Your task to perform on an android device: Search for vintage wall art on Etsy. Image 0: 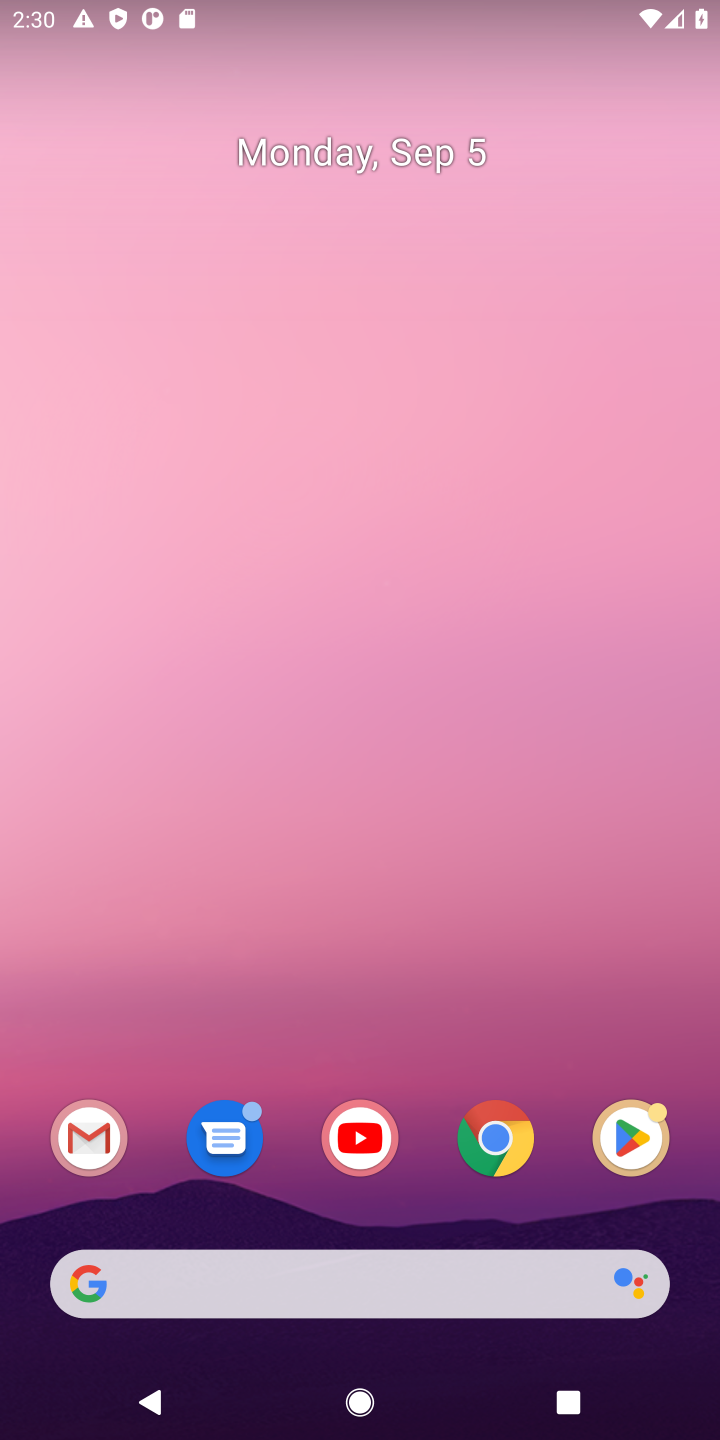
Step 0: click (497, 1139)
Your task to perform on an android device: Search for vintage wall art on Etsy. Image 1: 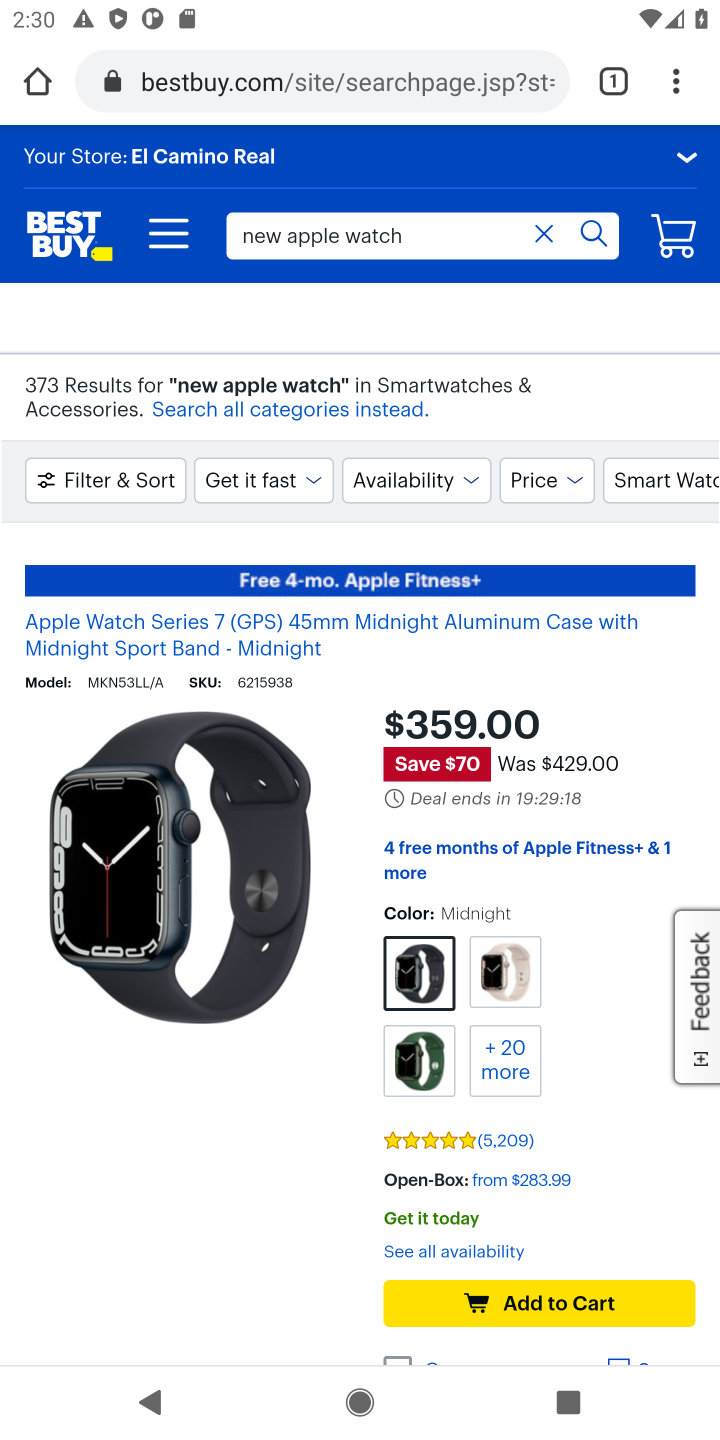
Step 1: click (463, 101)
Your task to perform on an android device: Search for vintage wall art on Etsy. Image 2: 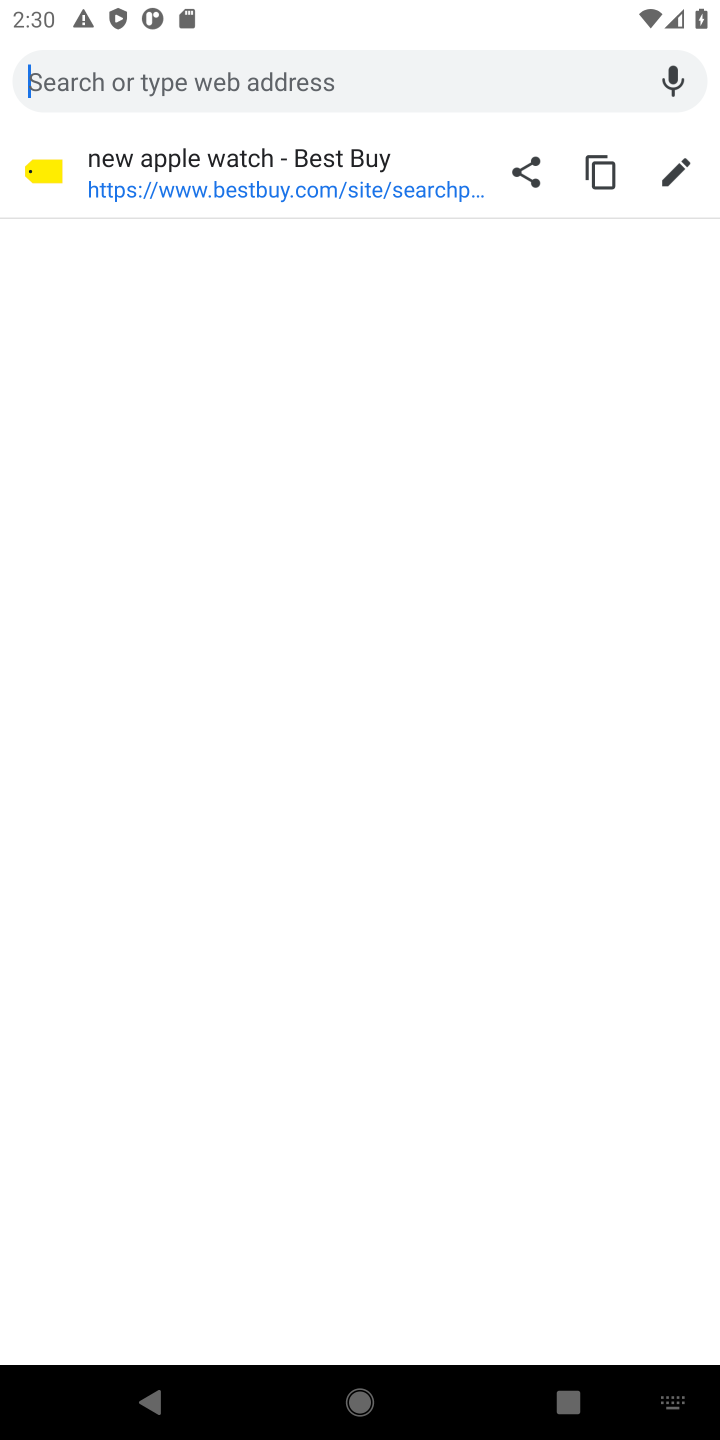
Step 2: type "Etsy"
Your task to perform on an android device: Search for vintage wall art on Etsy. Image 3: 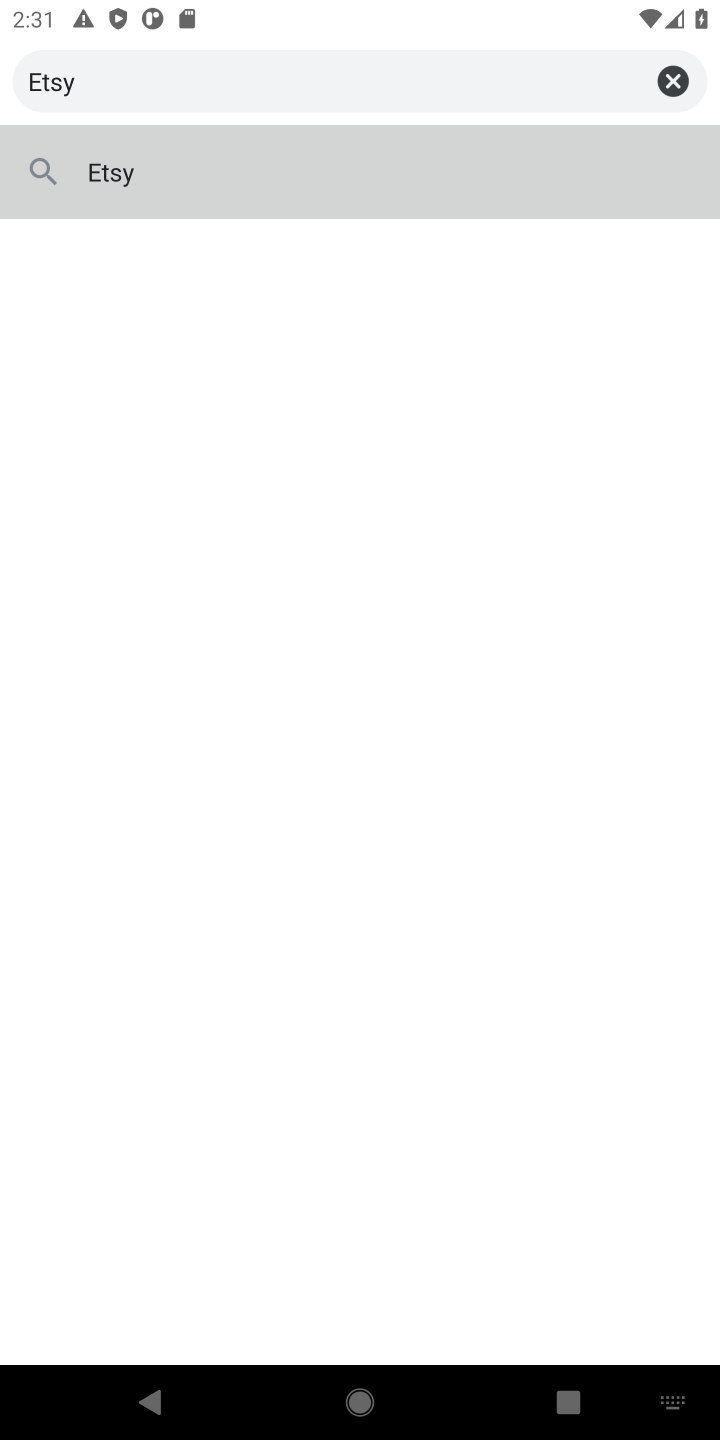
Step 3: click (137, 171)
Your task to perform on an android device: Search for vintage wall art on Etsy. Image 4: 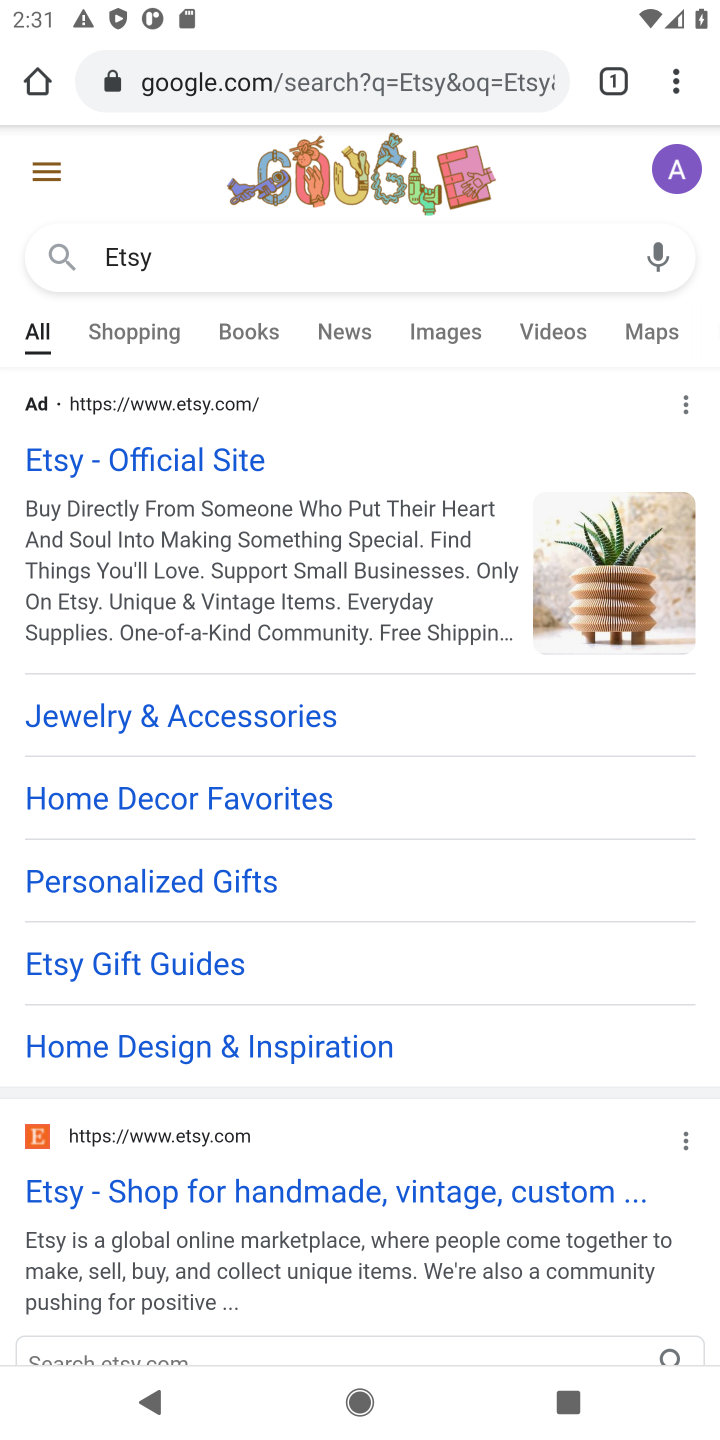
Step 4: click (263, 1207)
Your task to perform on an android device: Search for vintage wall art on Etsy. Image 5: 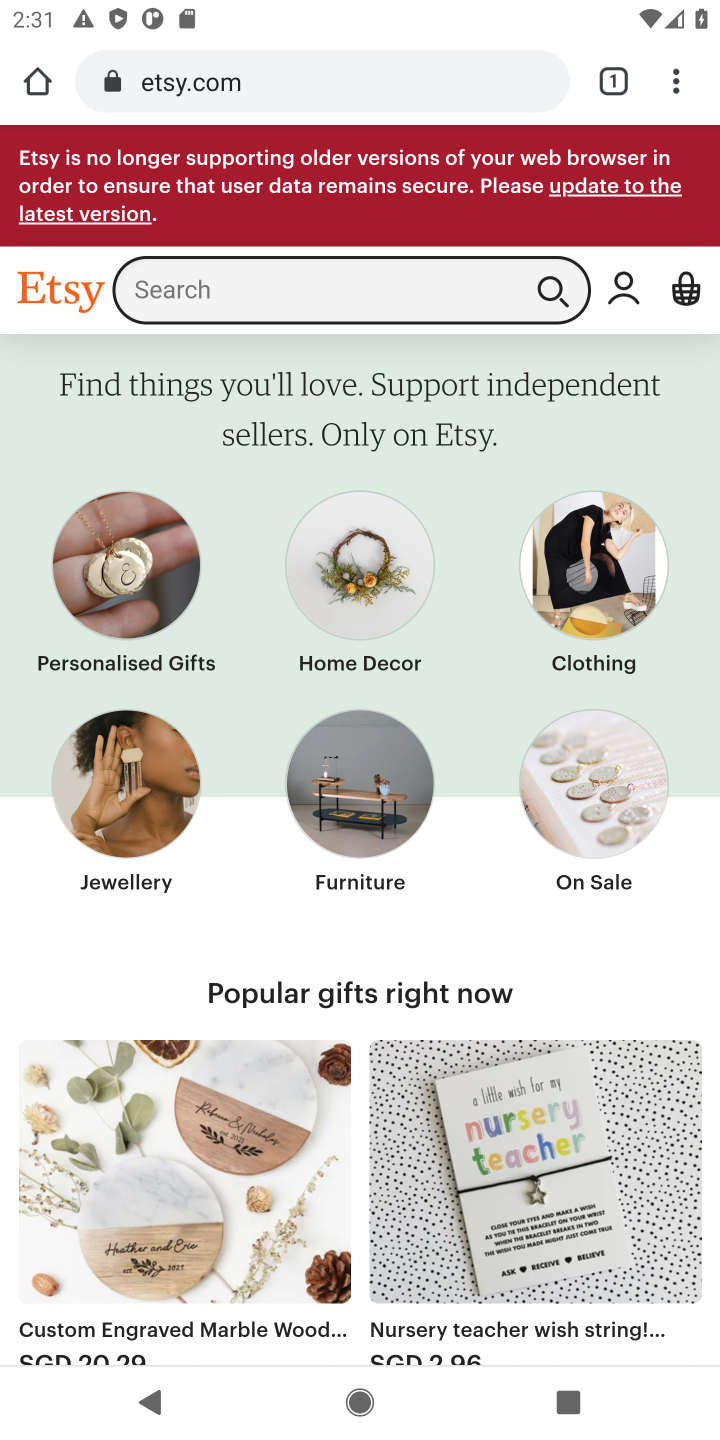
Step 5: click (366, 292)
Your task to perform on an android device: Search for vintage wall art on Etsy. Image 6: 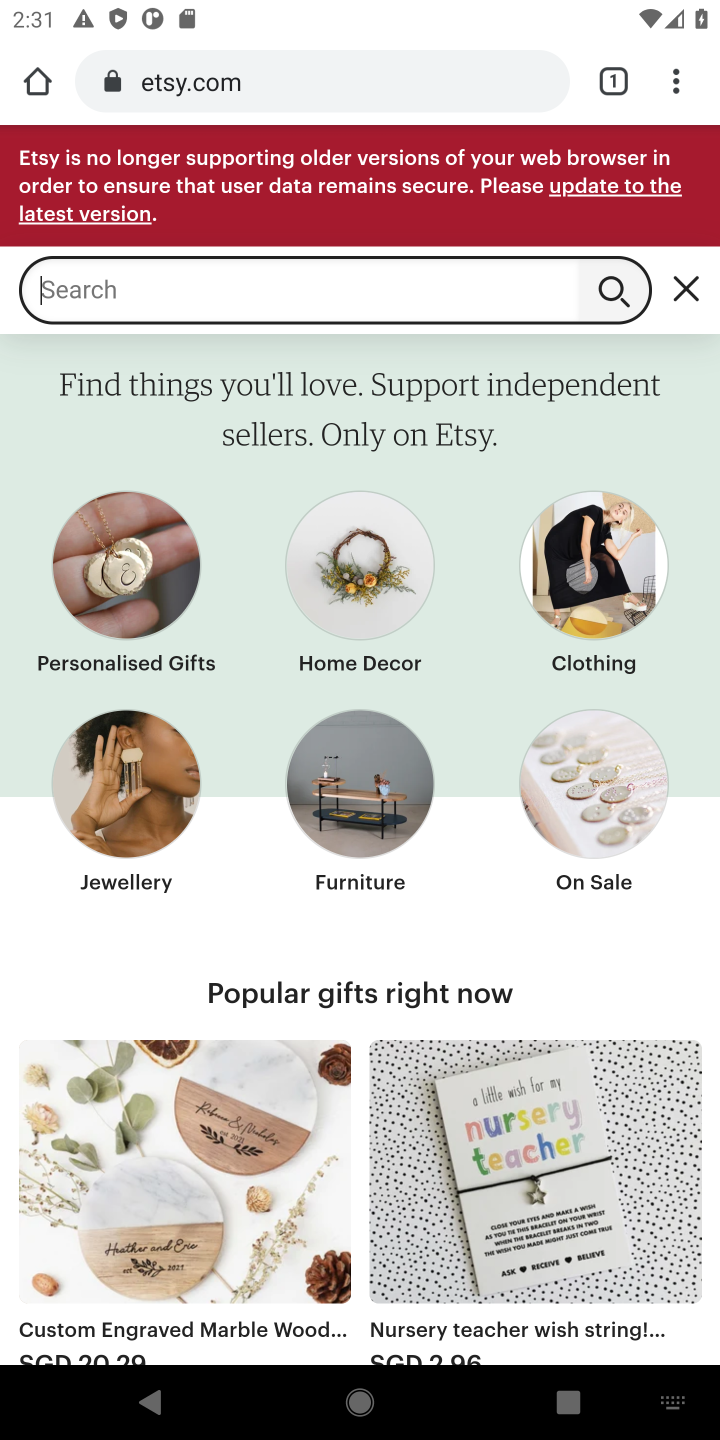
Step 6: type "vintage wall art"
Your task to perform on an android device: Search for vintage wall art on Etsy. Image 7: 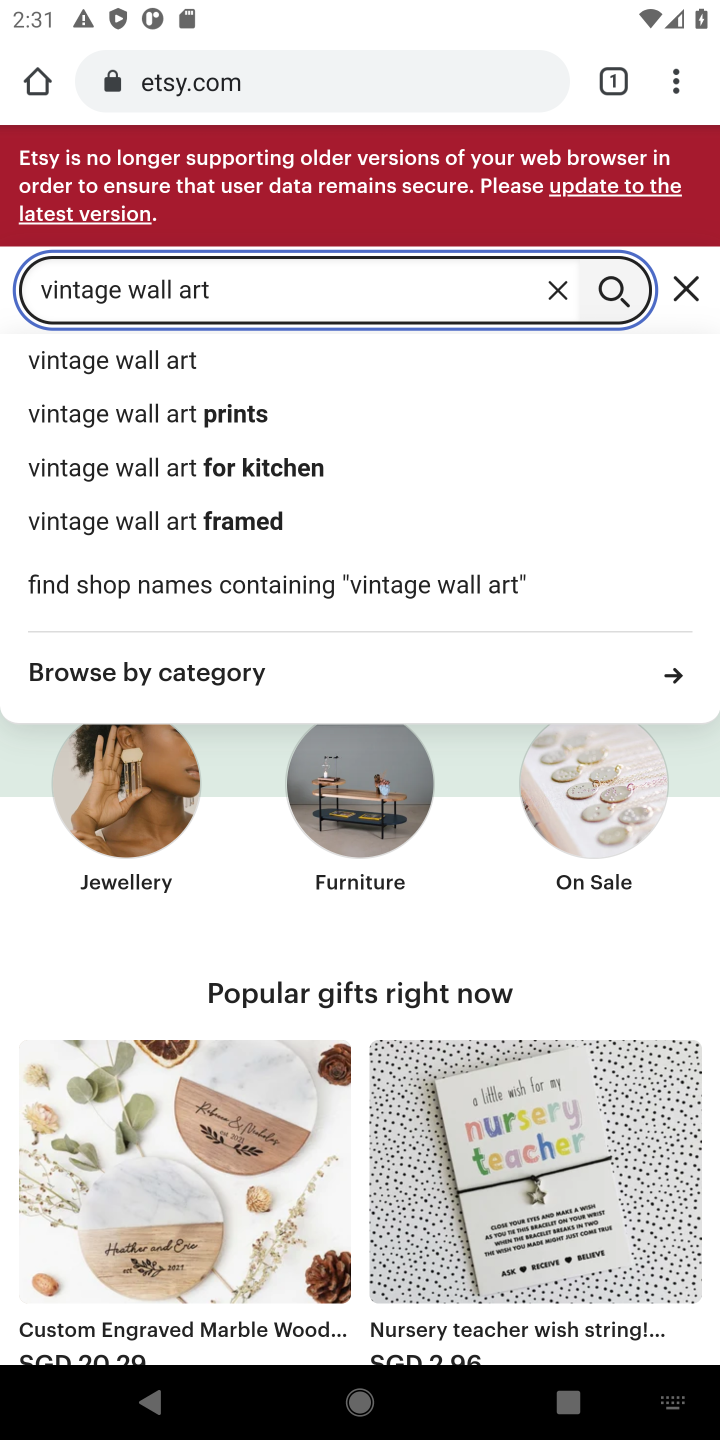
Step 7: click (607, 298)
Your task to perform on an android device: Search for vintage wall art on Etsy. Image 8: 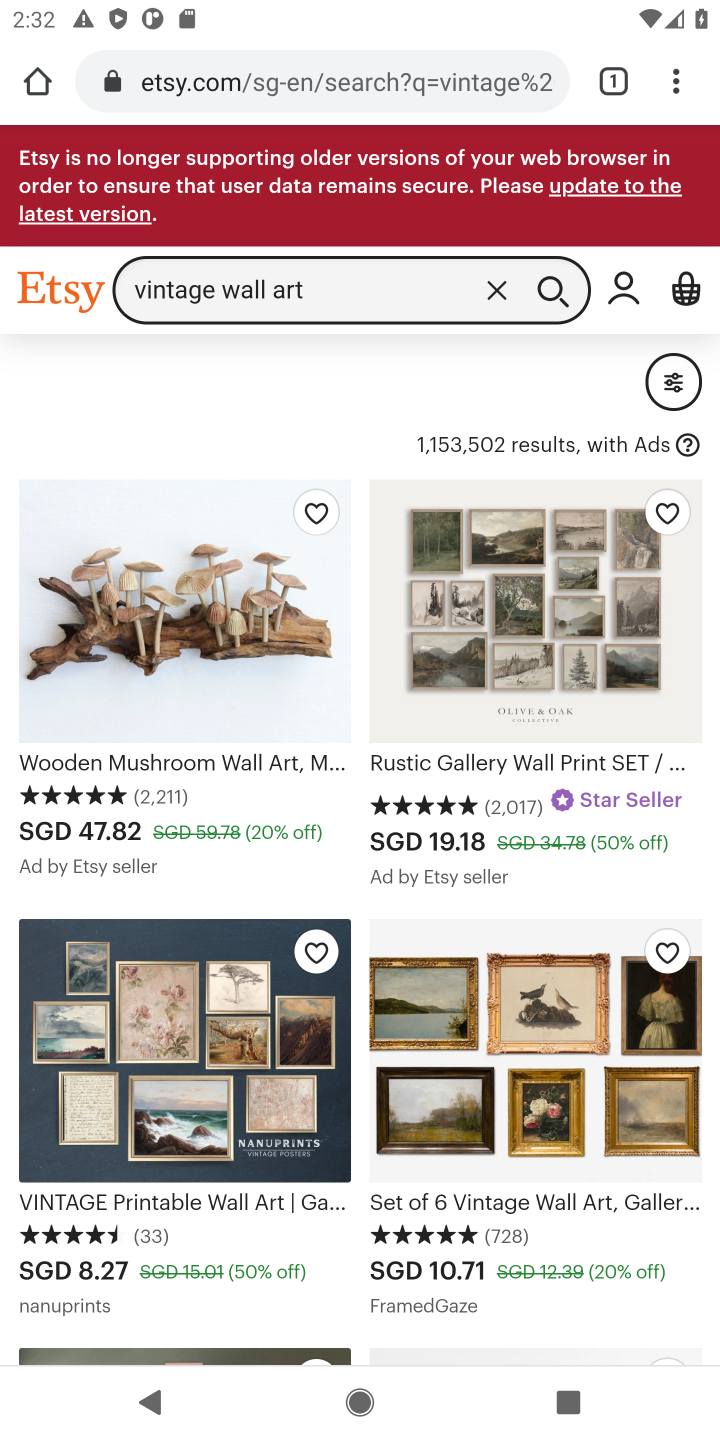
Step 8: task complete